Your task to perform on an android device: find which apps use the phone's location Image 0: 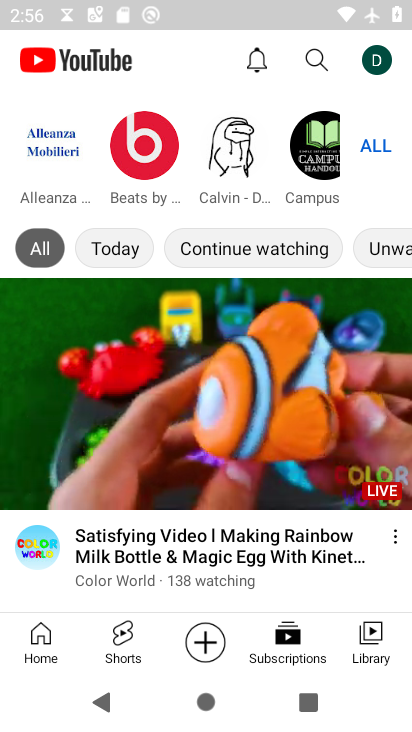
Step 0: press home button
Your task to perform on an android device: find which apps use the phone's location Image 1: 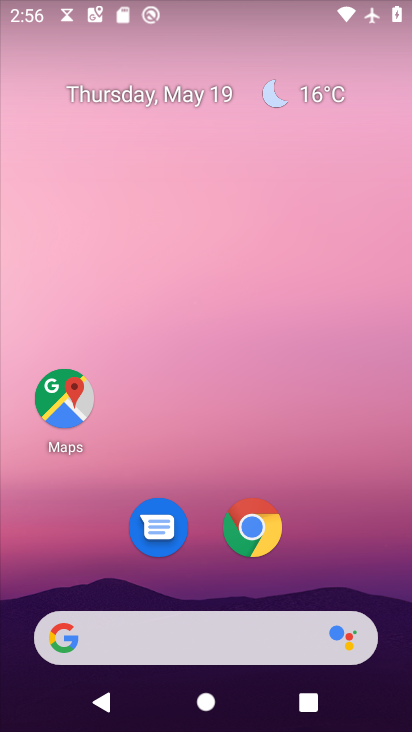
Step 1: drag from (337, 522) to (222, 75)
Your task to perform on an android device: find which apps use the phone's location Image 2: 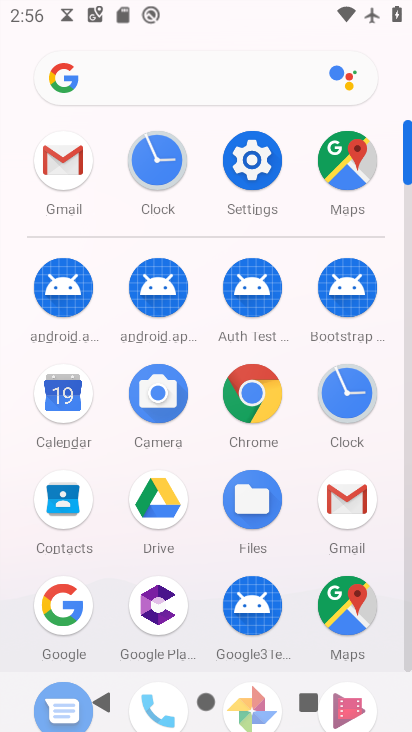
Step 2: click (264, 189)
Your task to perform on an android device: find which apps use the phone's location Image 3: 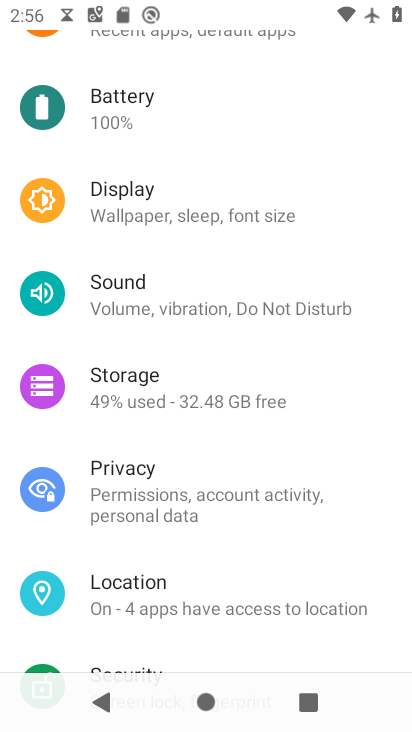
Step 3: click (203, 588)
Your task to perform on an android device: find which apps use the phone's location Image 4: 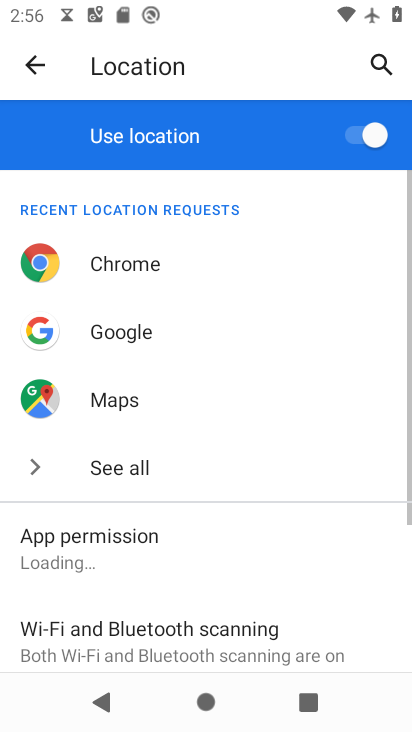
Step 4: drag from (221, 584) to (222, 221)
Your task to perform on an android device: find which apps use the phone's location Image 5: 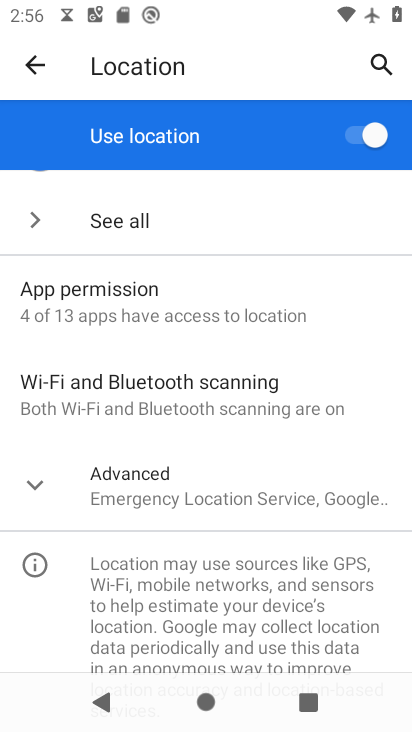
Step 5: click (193, 290)
Your task to perform on an android device: find which apps use the phone's location Image 6: 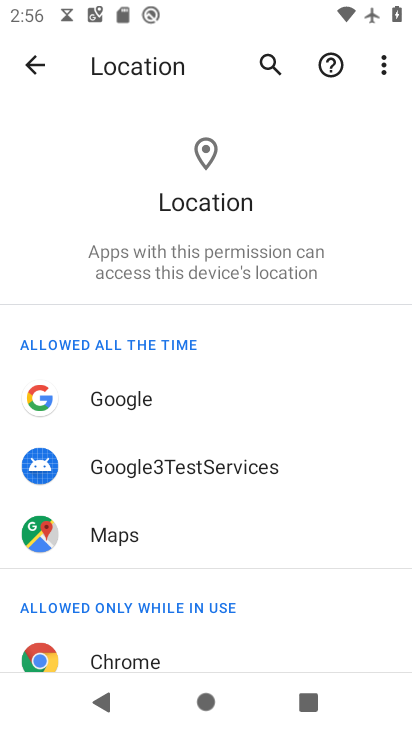
Step 6: task complete